Your task to perform on an android device: open a new tab in the chrome app Image 0: 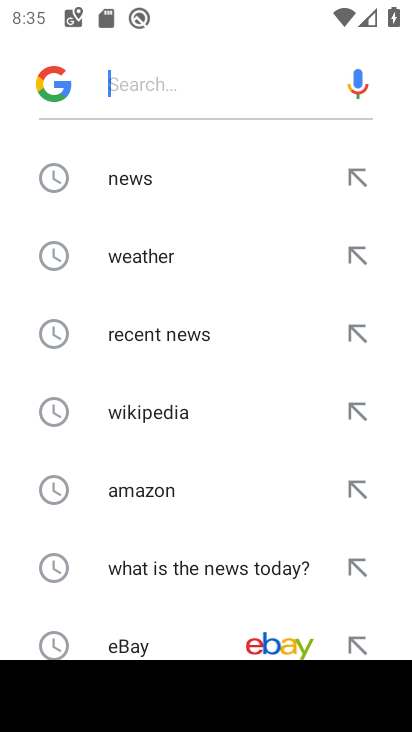
Step 0: press home button
Your task to perform on an android device: open a new tab in the chrome app Image 1: 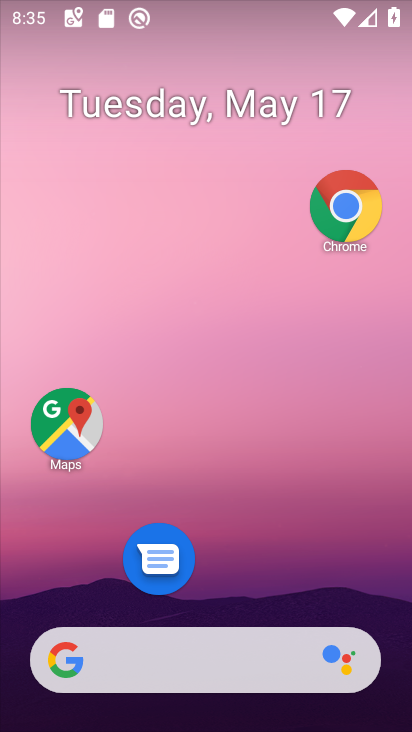
Step 1: drag from (244, 559) to (272, 276)
Your task to perform on an android device: open a new tab in the chrome app Image 2: 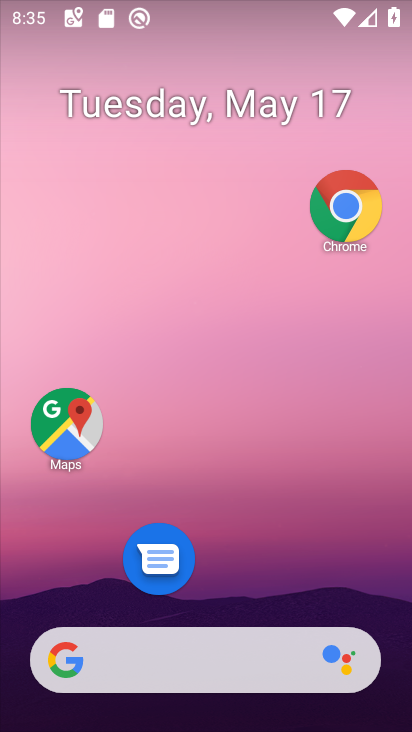
Step 2: click (354, 228)
Your task to perform on an android device: open a new tab in the chrome app Image 3: 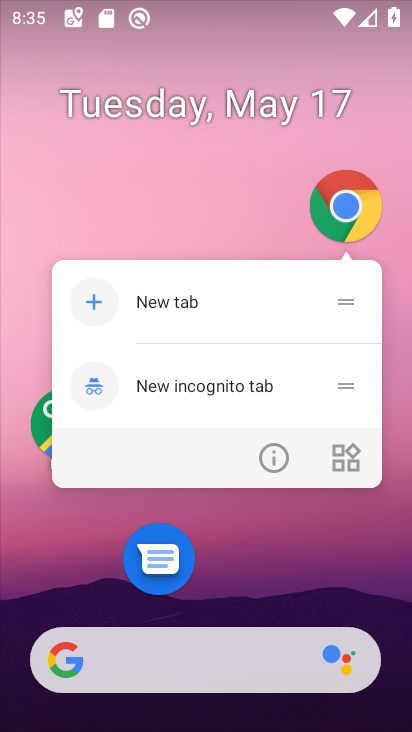
Step 3: click (348, 230)
Your task to perform on an android device: open a new tab in the chrome app Image 4: 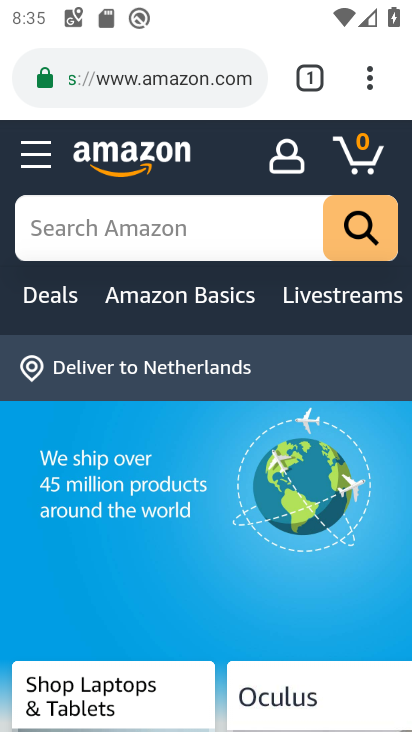
Step 4: drag from (308, 84) to (323, 260)
Your task to perform on an android device: open a new tab in the chrome app Image 5: 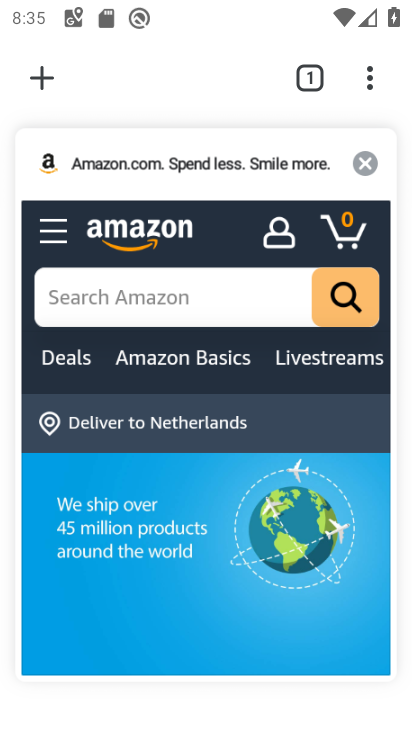
Step 5: click (36, 79)
Your task to perform on an android device: open a new tab in the chrome app Image 6: 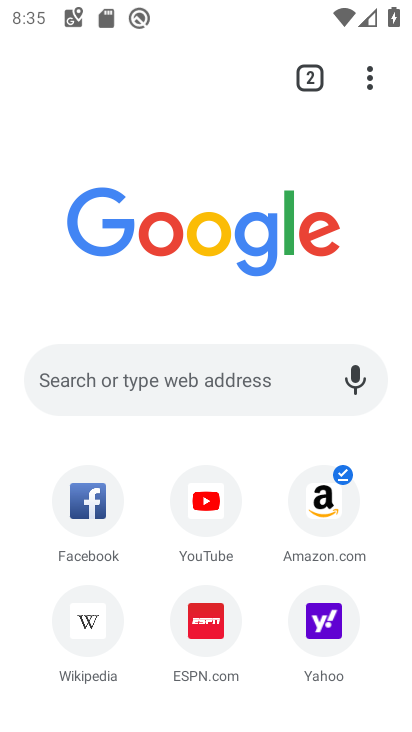
Step 6: task complete